Your task to perform on an android device: Is it going to rain tomorrow? Image 0: 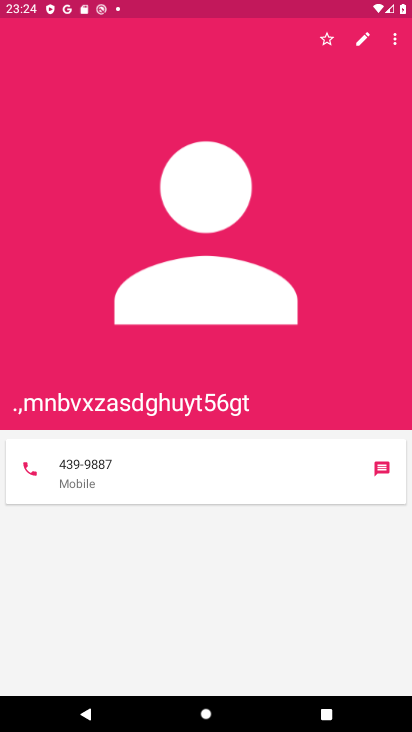
Step 0: press home button
Your task to perform on an android device: Is it going to rain tomorrow? Image 1: 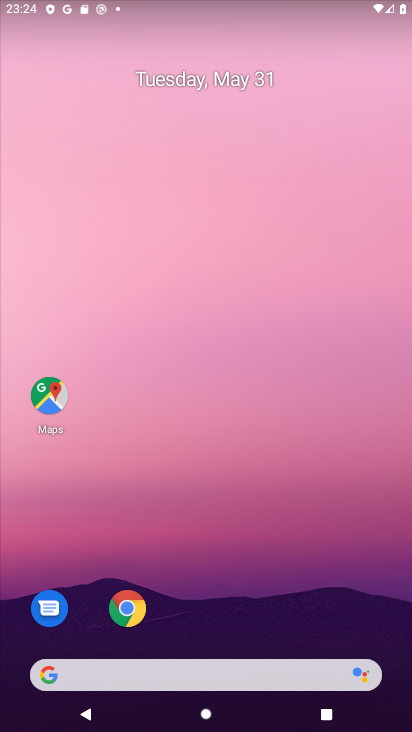
Step 1: click (129, 601)
Your task to perform on an android device: Is it going to rain tomorrow? Image 2: 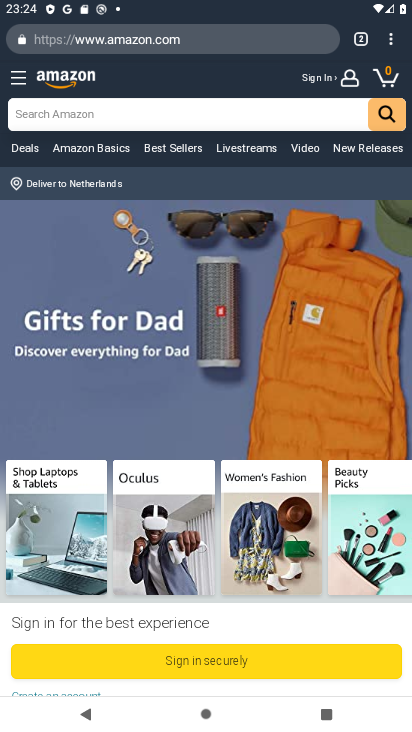
Step 2: click (156, 45)
Your task to perform on an android device: Is it going to rain tomorrow? Image 3: 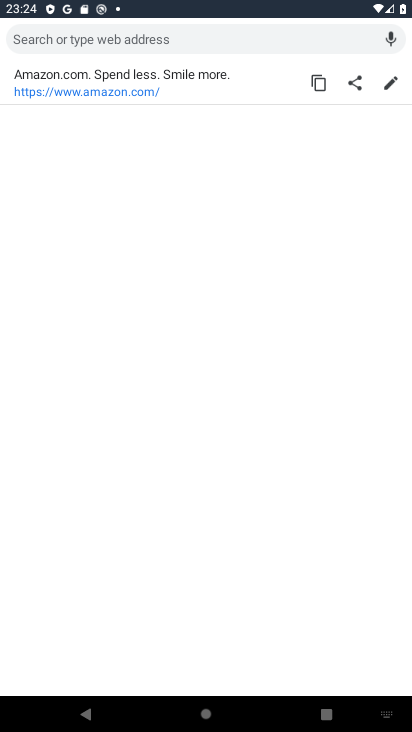
Step 3: type "Is it going to rain tomorrow?"
Your task to perform on an android device: Is it going to rain tomorrow? Image 4: 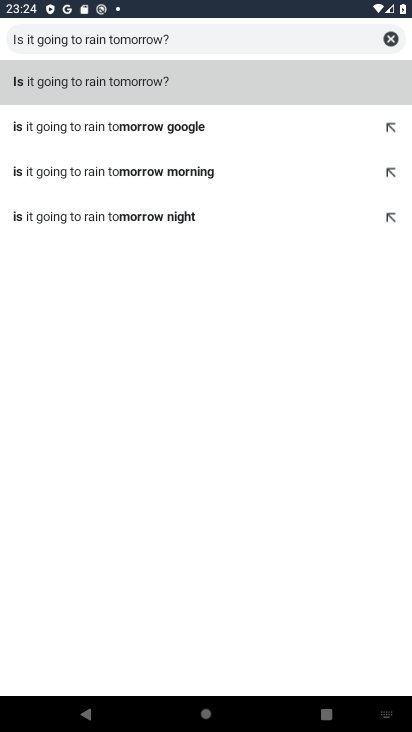
Step 4: click (168, 77)
Your task to perform on an android device: Is it going to rain tomorrow? Image 5: 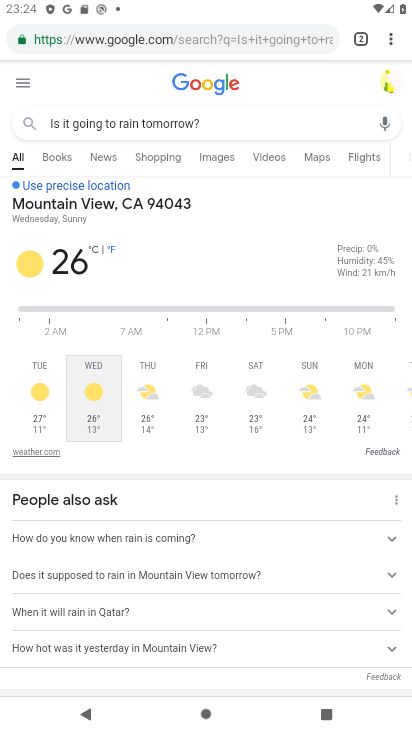
Step 5: task complete